Your task to perform on an android device: toggle improve location accuracy Image 0: 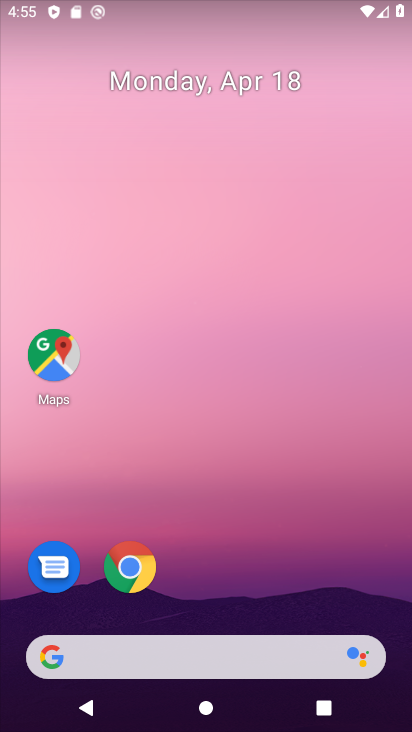
Step 0: drag from (386, 627) to (267, 24)
Your task to perform on an android device: toggle improve location accuracy Image 1: 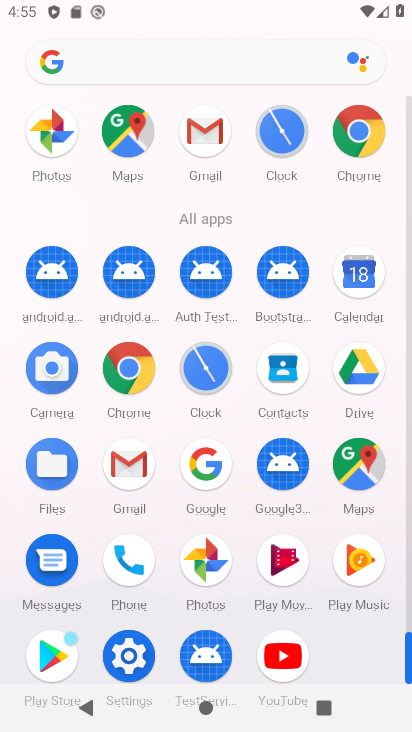
Step 1: drag from (9, 470) to (6, 272)
Your task to perform on an android device: toggle improve location accuracy Image 2: 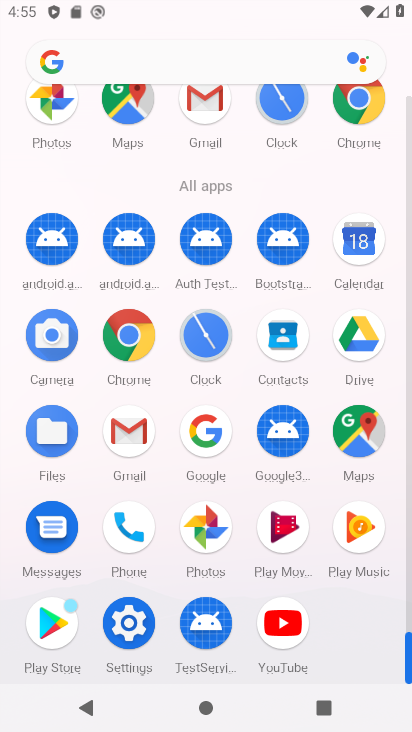
Step 2: drag from (10, 177) to (14, 404)
Your task to perform on an android device: toggle improve location accuracy Image 3: 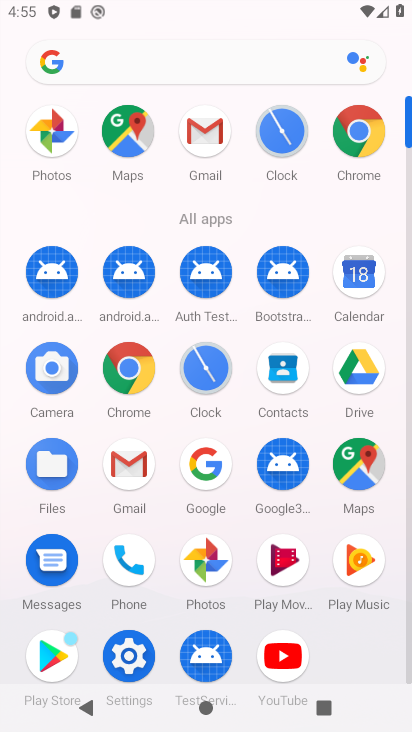
Step 3: click (129, 653)
Your task to perform on an android device: toggle improve location accuracy Image 4: 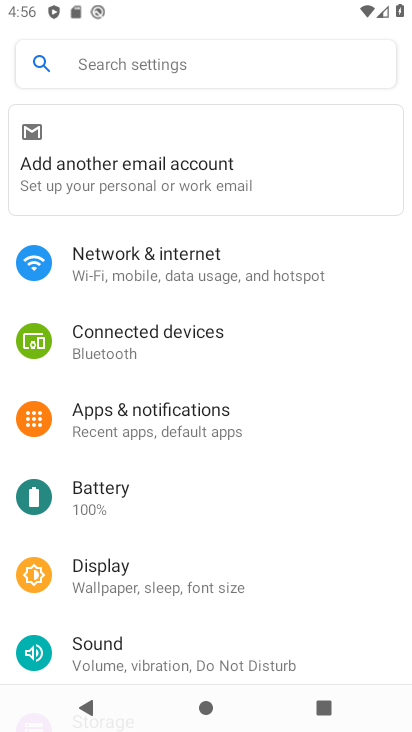
Step 4: drag from (267, 509) to (235, 151)
Your task to perform on an android device: toggle improve location accuracy Image 5: 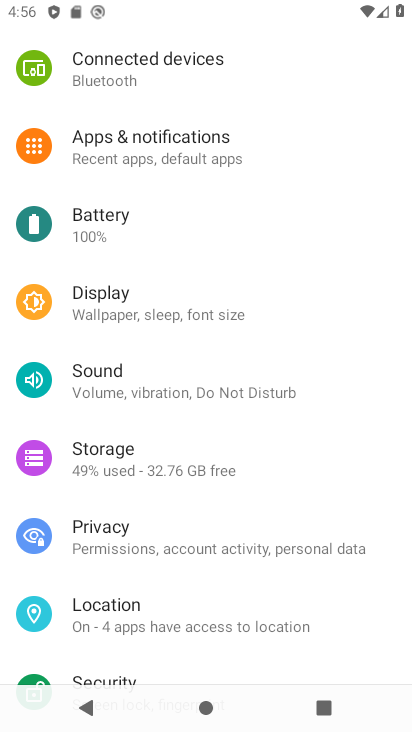
Step 5: click (192, 606)
Your task to perform on an android device: toggle improve location accuracy Image 6: 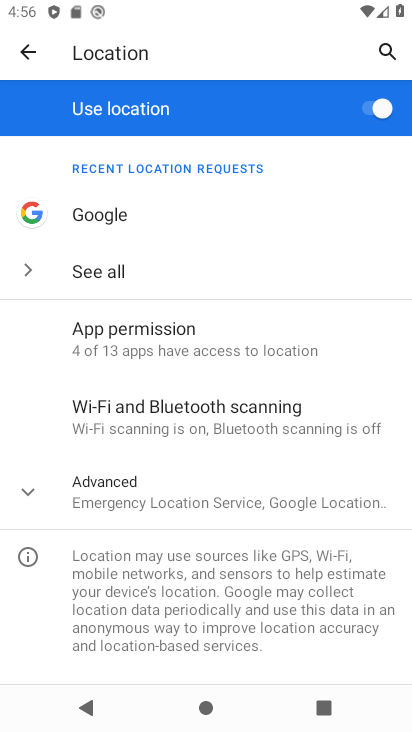
Step 6: click (149, 502)
Your task to perform on an android device: toggle improve location accuracy Image 7: 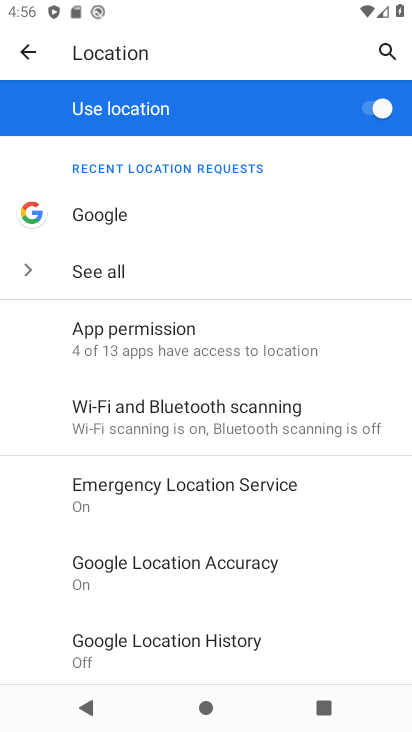
Step 7: drag from (308, 563) to (309, 232)
Your task to perform on an android device: toggle improve location accuracy Image 8: 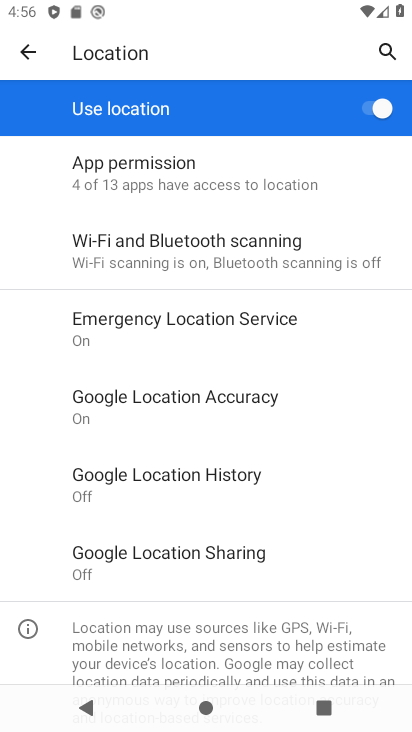
Step 8: click (238, 405)
Your task to perform on an android device: toggle improve location accuracy Image 9: 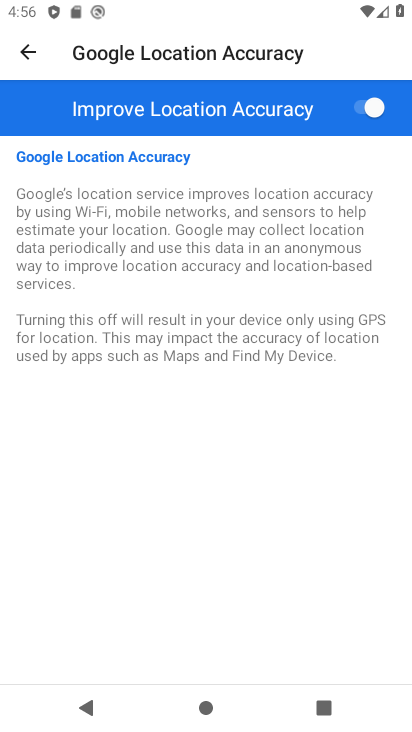
Step 9: click (365, 101)
Your task to perform on an android device: toggle improve location accuracy Image 10: 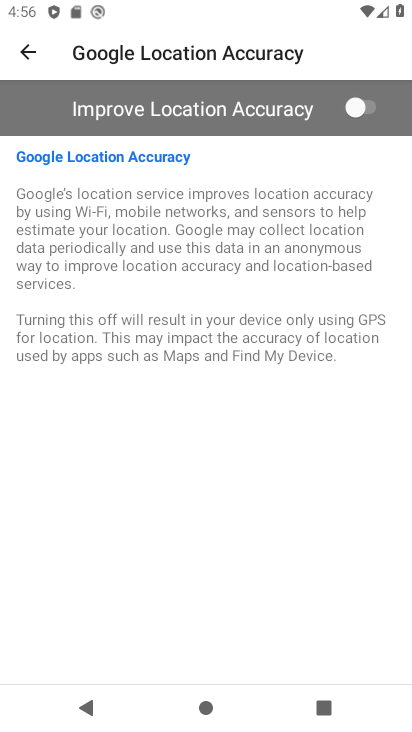
Step 10: task complete